Your task to perform on an android device: Open Google Maps and go to "Timeline" Image 0: 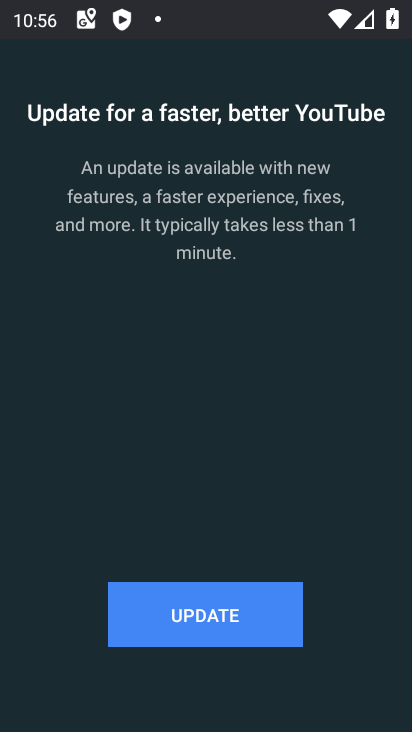
Step 0: press home button
Your task to perform on an android device: Open Google Maps and go to "Timeline" Image 1: 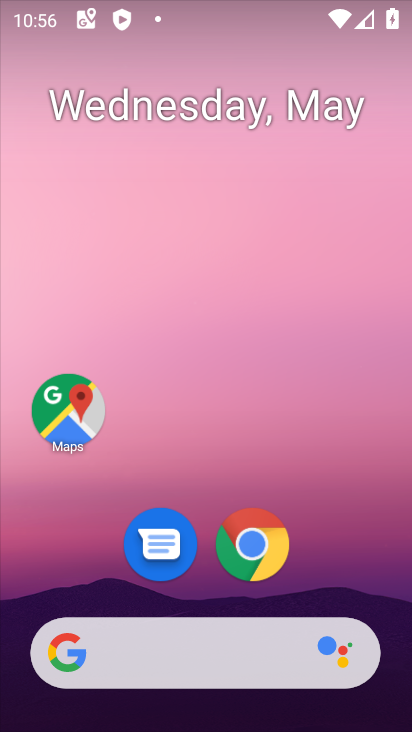
Step 1: drag from (285, 658) to (268, 140)
Your task to perform on an android device: Open Google Maps and go to "Timeline" Image 2: 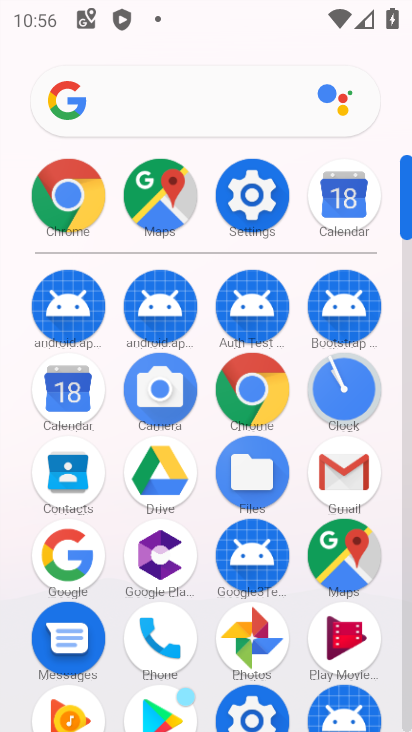
Step 2: click (333, 575)
Your task to perform on an android device: Open Google Maps and go to "Timeline" Image 3: 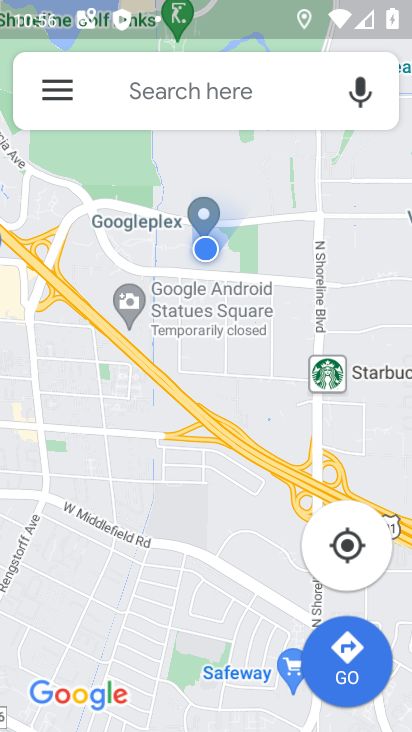
Step 3: click (55, 85)
Your task to perform on an android device: Open Google Maps and go to "Timeline" Image 4: 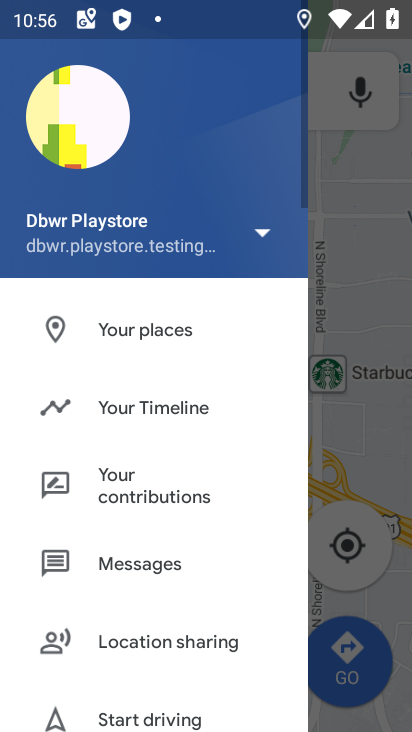
Step 4: click (108, 415)
Your task to perform on an android device: Open Google Maps and go to "Timeline" Image 5: 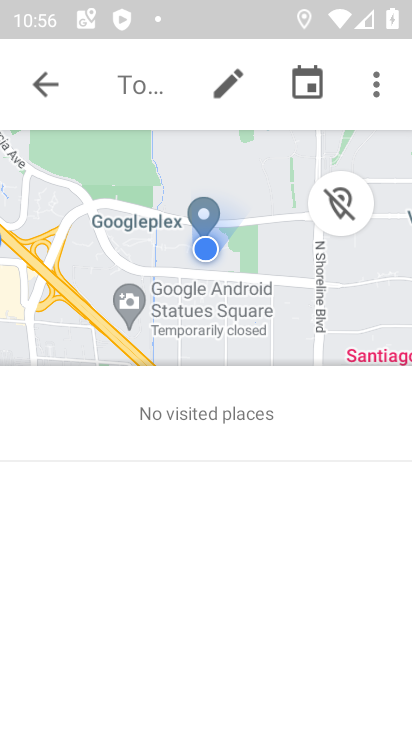
Step 5: task complete